Your task to perform on an android device: open app "Adobe Acrobat Reader" (install if not already installed) and enter user name: "nondescriptly@inbox.com" and password: "negating" Image 0: 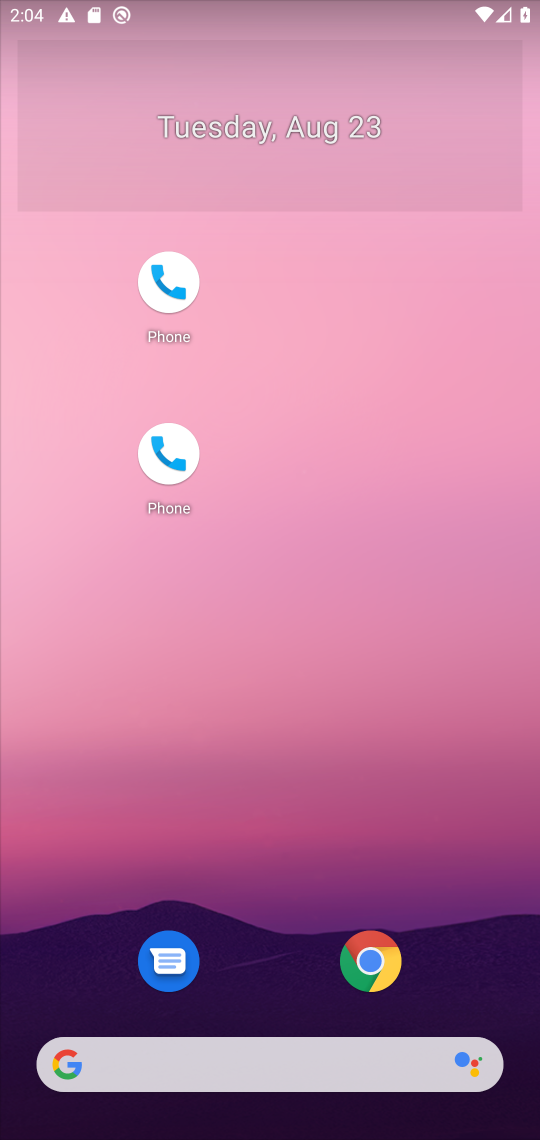
Step 0: task complete